Your task to perform on an android device: check battery use Image 0: 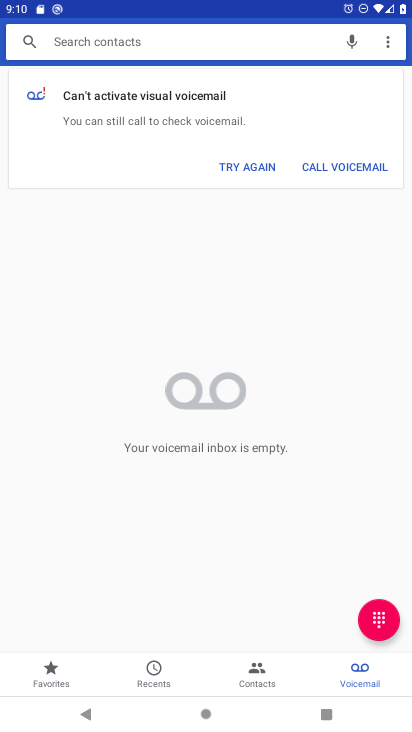
Step 0: press home button
Your task to perform on an android device: check battery use Image 1: 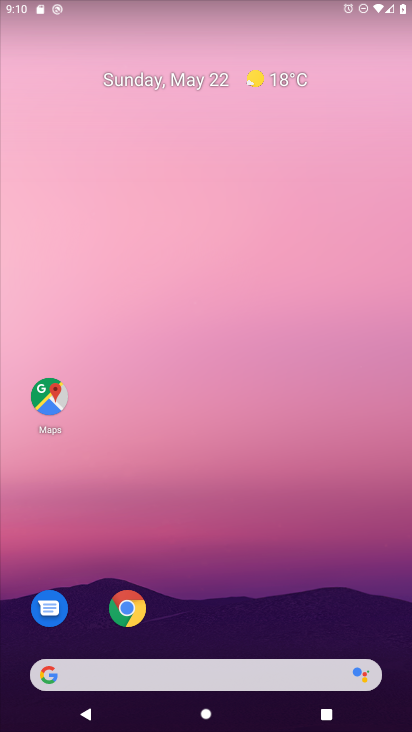
Step 1: drag from (228, 725) to (207, 259)
Your task to perform on an android device: check battery use Image 2: 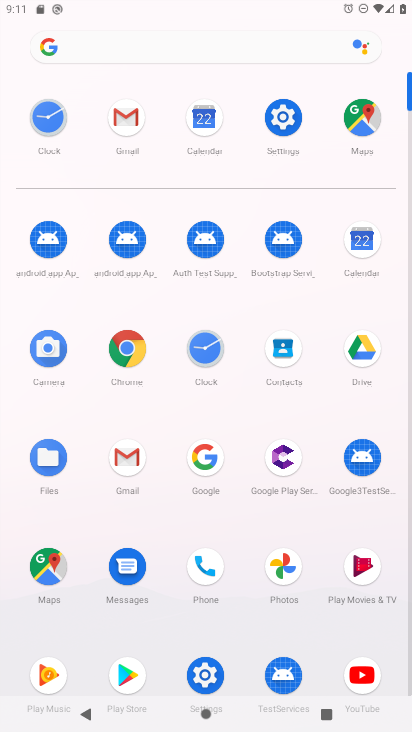
Step 2: click (283, 116)
Your task to perform on an android device: check battery use Image 3: 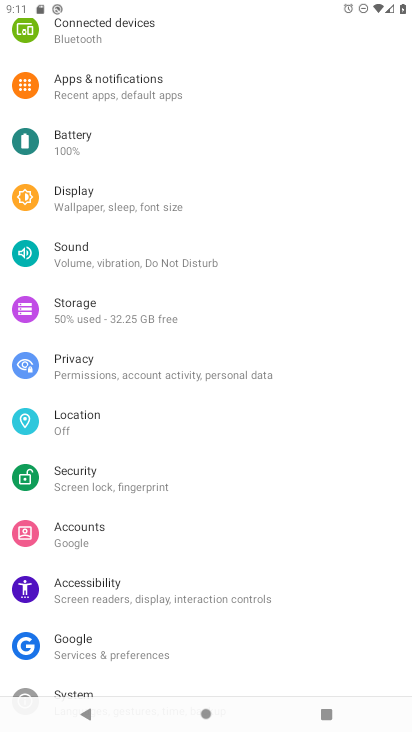
Step 3: click (67, 139)
Your task to perform on an android device: check battery use Image 4: 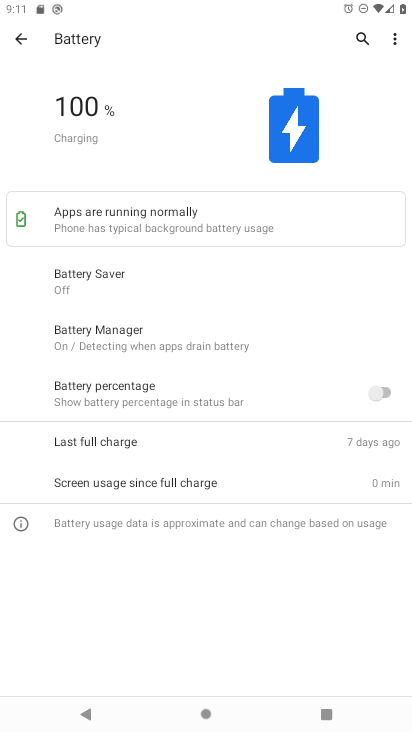
Step 4: click (395, 43)
Your task to perform on an android device: check battery use Image 5: 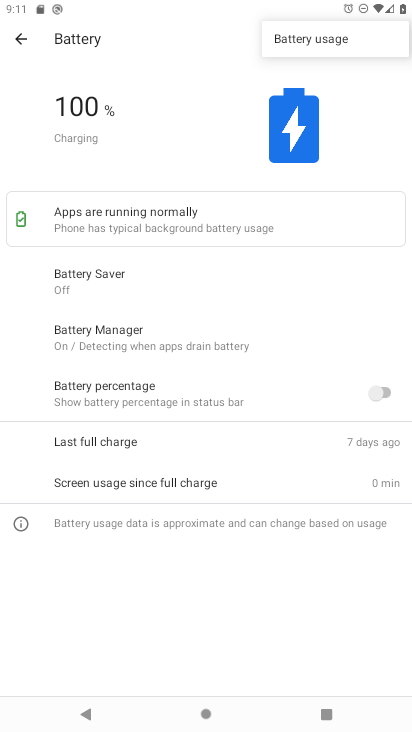
Step 5: click (304, 37)
Your task to perform on an android device: check battery use Image 6: 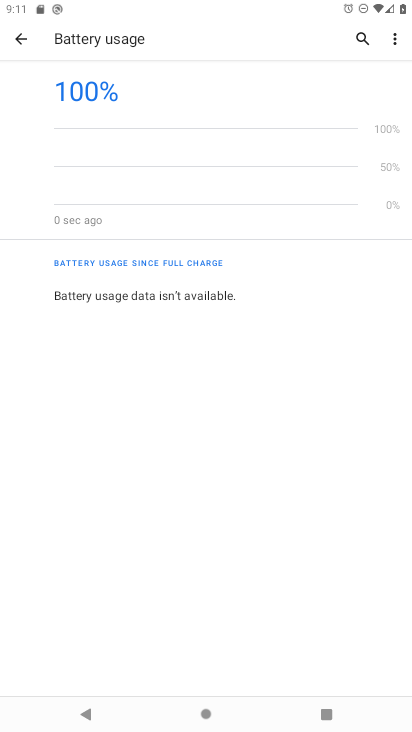
Step 6: task complete